Your task to perform on an android device: change text size in settings app Image 0: 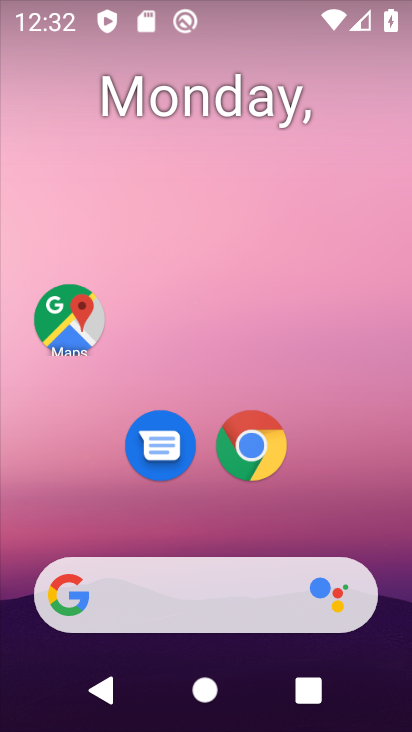
Step 0: drag from (380, 649) to (247, 135)
Your task to perform on an android device: change text size in settings app Image 1: 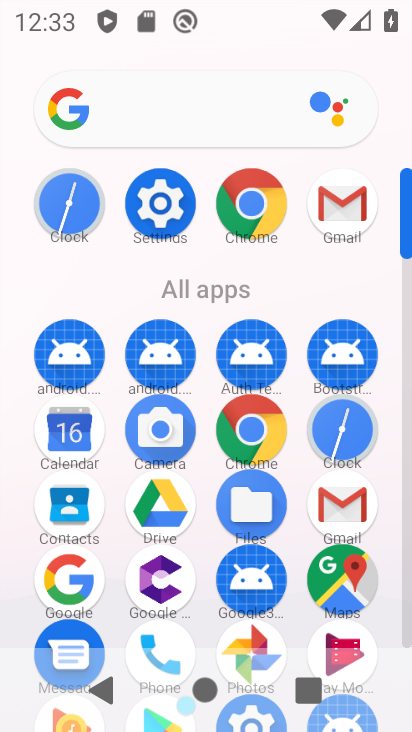
Step 1: click (160, 210)
Your task to perform on an android device: change text size in settings app Image 2: 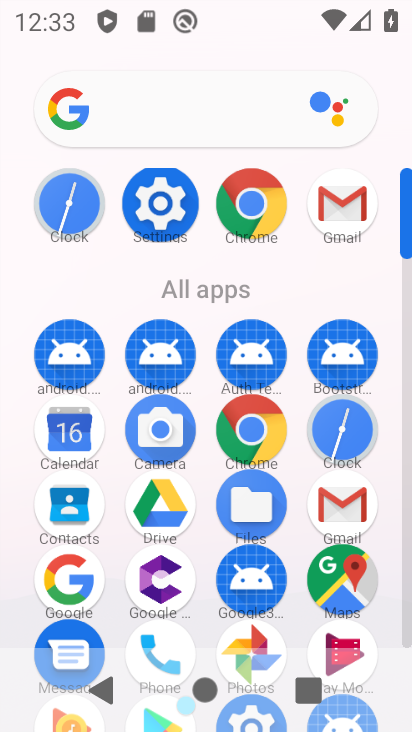
Step 2: click (160, 210)
Your task to perform on an android device: change text size in settings app Image 3: 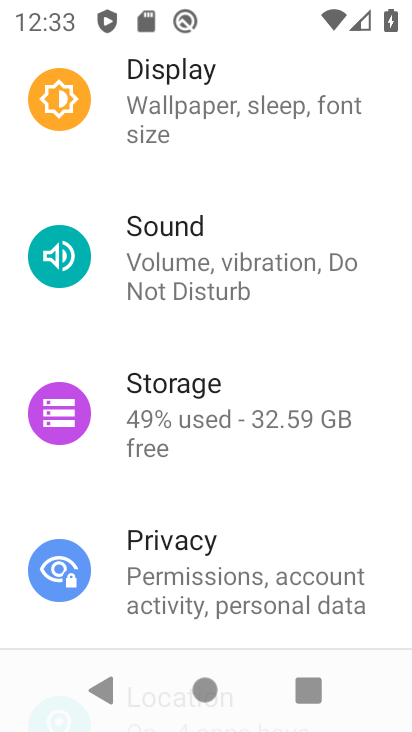
Step 3: drag from (190, 147) to (280, 445)
Your task to perform on an android device: change text size in settings app Image 4: 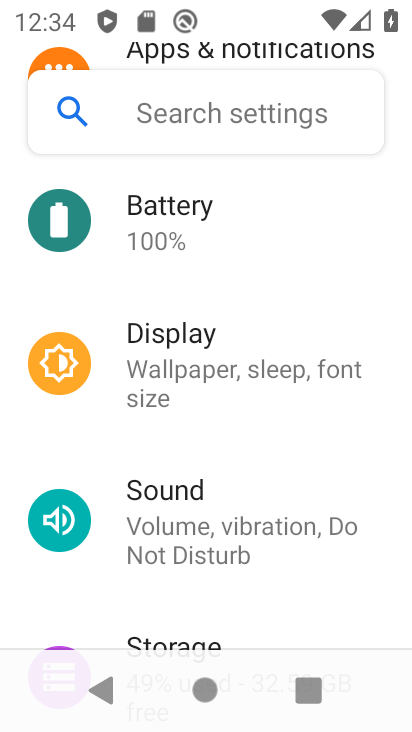
Step 4: click (169, 362)
Your task to perform on an android device: change text size in settings app Image 5: 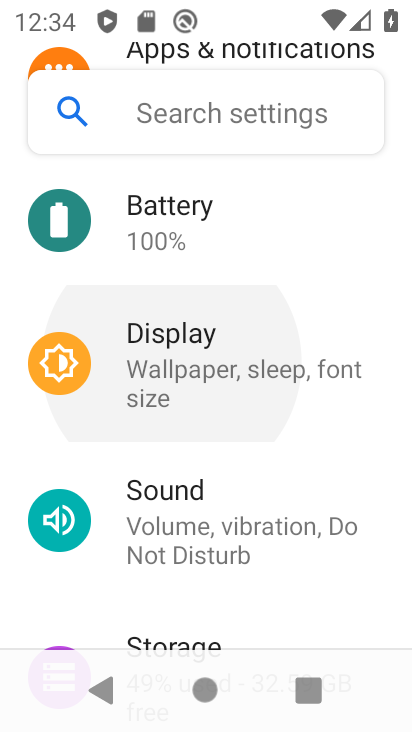
Step 5: click (169, 362)
Your task to perform on an android device: change text size in settings app Image 6: 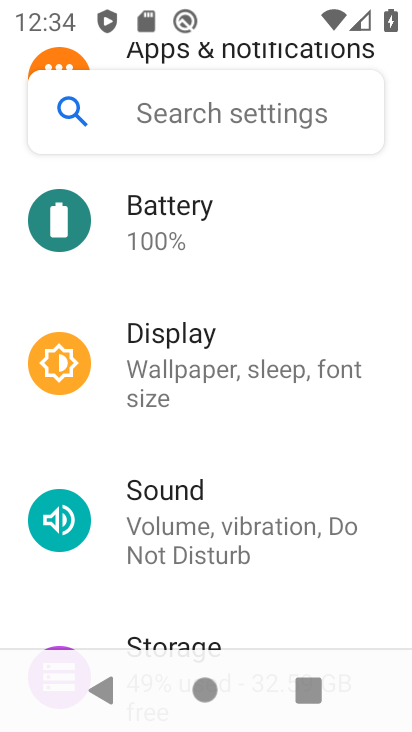
Step 6: click (170, 363)
Your task to perform on an android device: change text size in settings app Image 7: 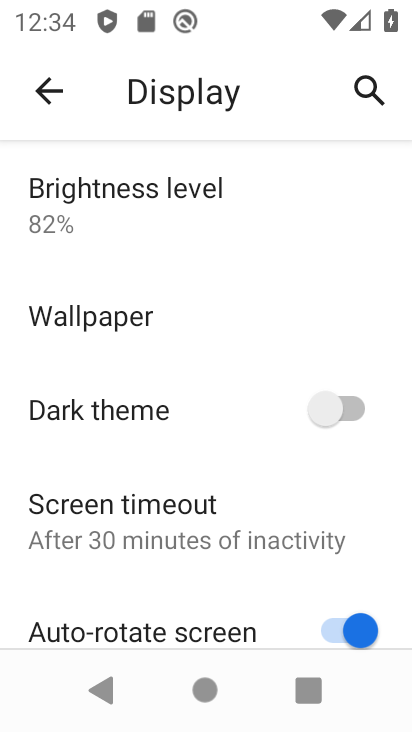
Step 7: drag from (228, 541) to (200, 255)
Your task to perform on an android device: change text size in settings app Image 8: 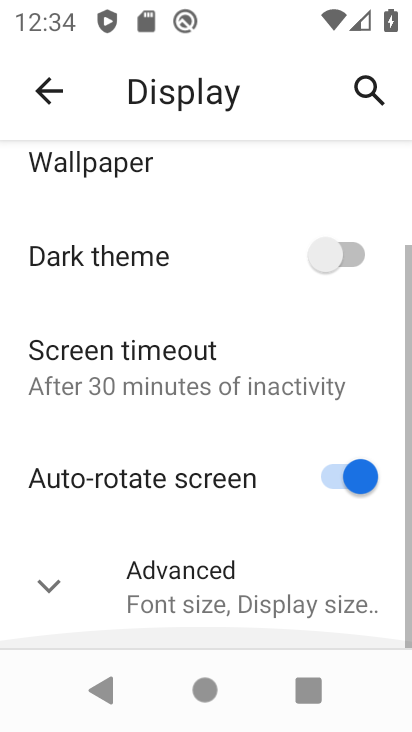
Step 8: drag from (207, 402) to (238, 188)
Your task to perform on an android device: change text size in settings app Image 9: 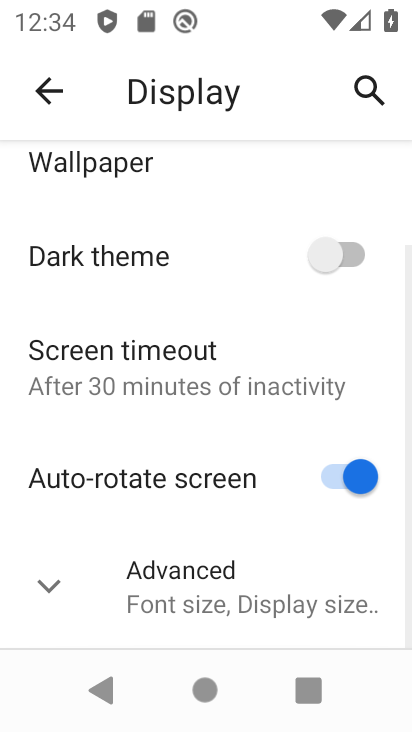
Step 9: drag from (151, 279) to (232, 577)
Your task to perform on an android device: change text size in settings app Image 10: 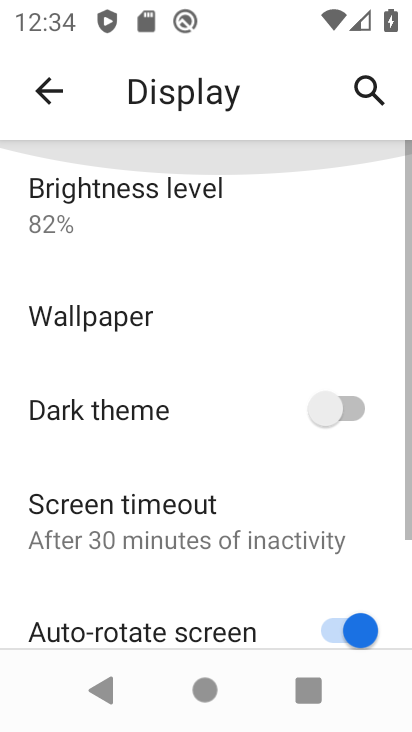
Step 10: drag from (181, 351) to (264, 613)
Your task to perform on an android device: change text size in settings app Image 11: 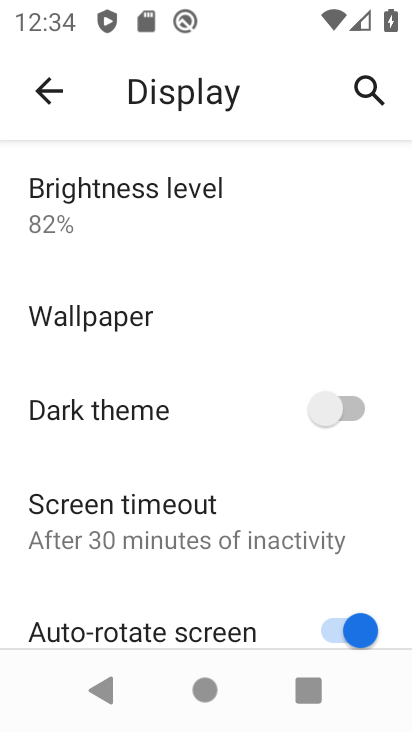
Step 11: drag from (212, 400) to (224, 153)
Your task to perform on an android device: change text size in settings app Image 12: 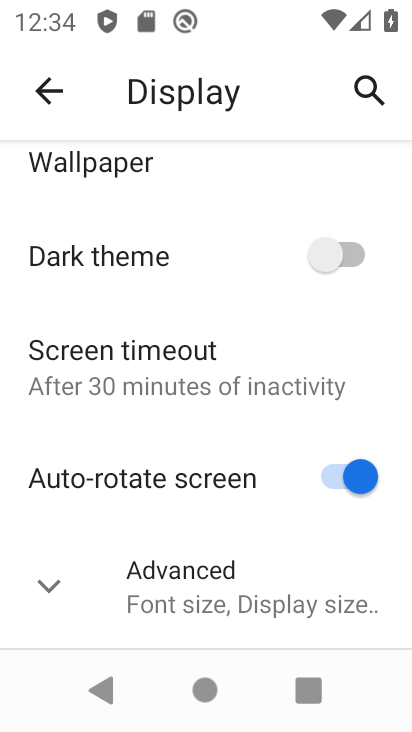
Step 12: click (211, 592)
Your task to perform on an android device: change text size in settings app Image 13: 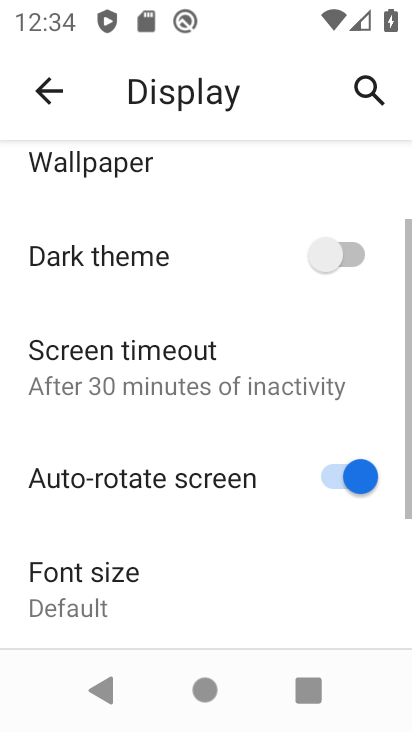
Step 13: drag from (188, 456) to (200, 95)
Your task to perform on an android device: change text size in settings app Image 14: 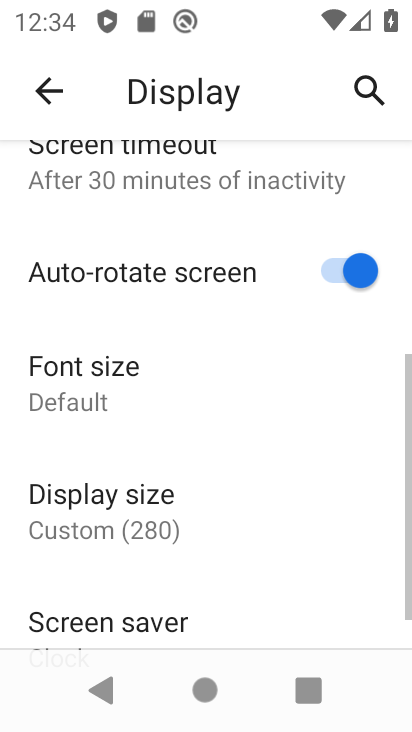
Step 14: drag from (229, 234) to (268, 101)
Your task to perform on an android device: change text size in settings app Image 15: 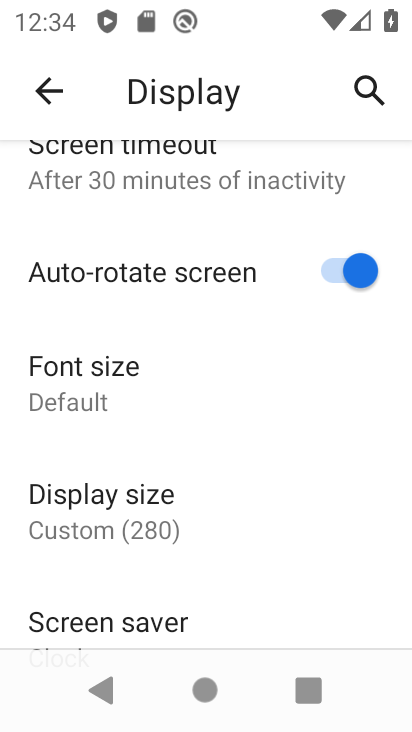
Step 15: click (65, 393)
Your task to perform on an android device: change text size in settings app Image 16: 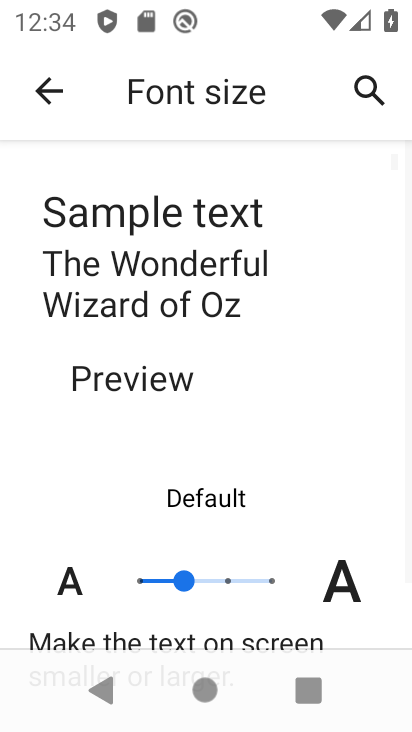
Step 16: click (222, 581)
Your task to perform on an android device: change text size in settings app Image 17: 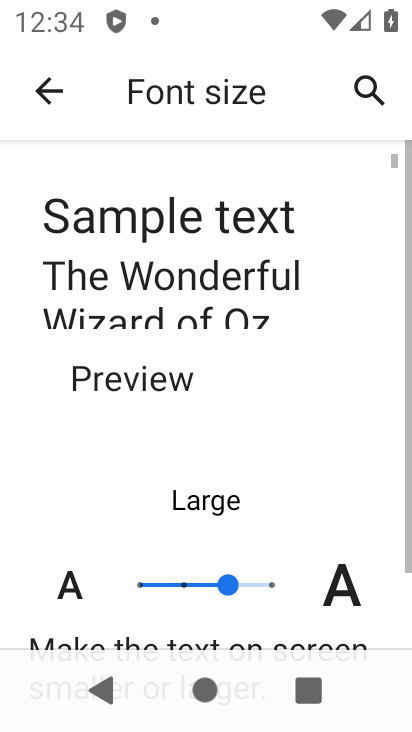
Step 17: task complete